Your task to perform on an android device: Open Google Image 0: 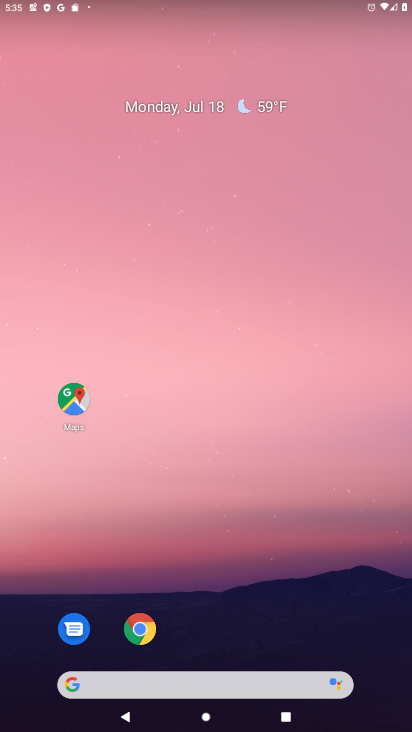
Step 0: drag from (291, 583) to (249, 101)
Your task to perform on an android device: Open Google Image 1: 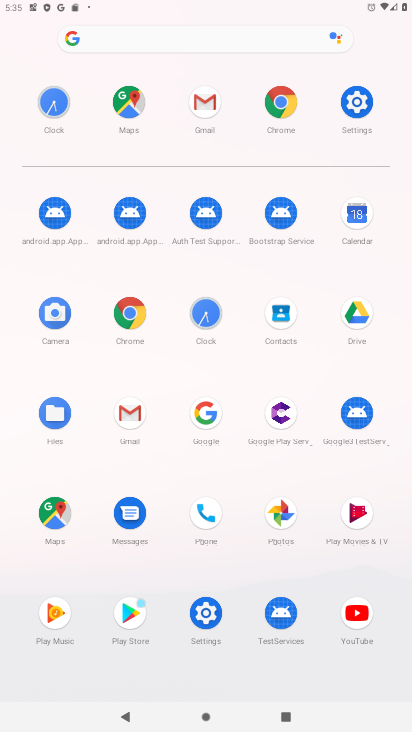
Step 1: click (208, 416)
Your task to perform on an android device: Open Google Image 2: 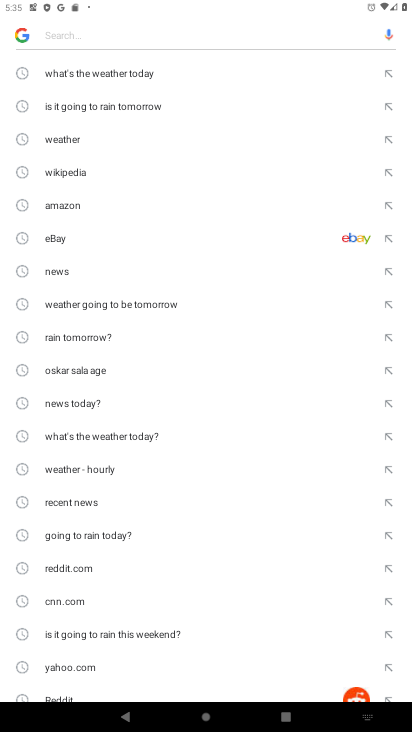
Step 2: task complete